Your task to perform on an android device: turn off airplane mode Image 0: 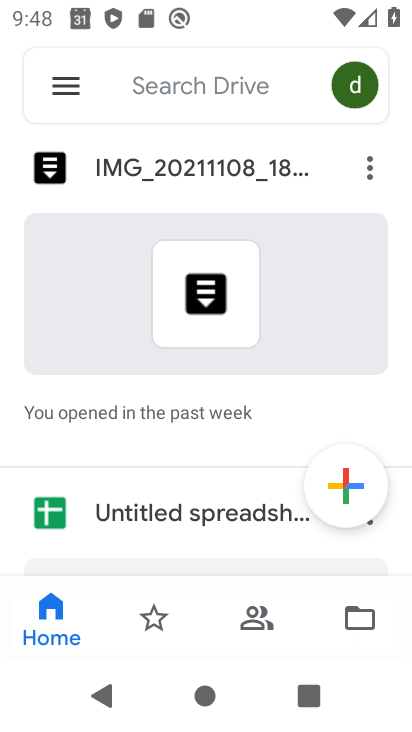
Step 0: press home button
Your task to perform on an android device: turn off airplane mode Image 1: 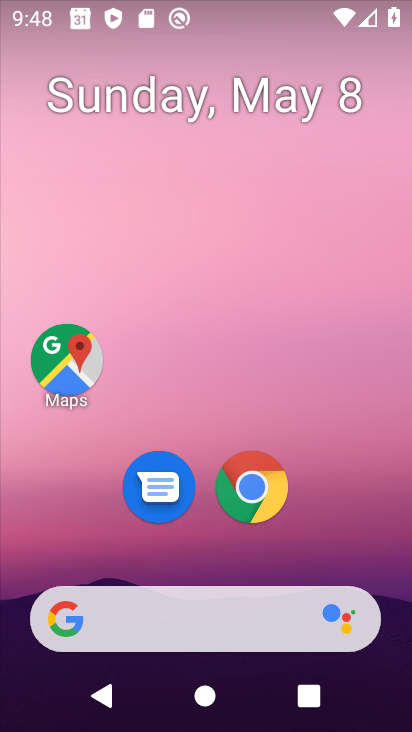
Step 1: drag from (384, 472) to (401, 69)
Your task to perform on an android device: turn off airplane mode Image 2: 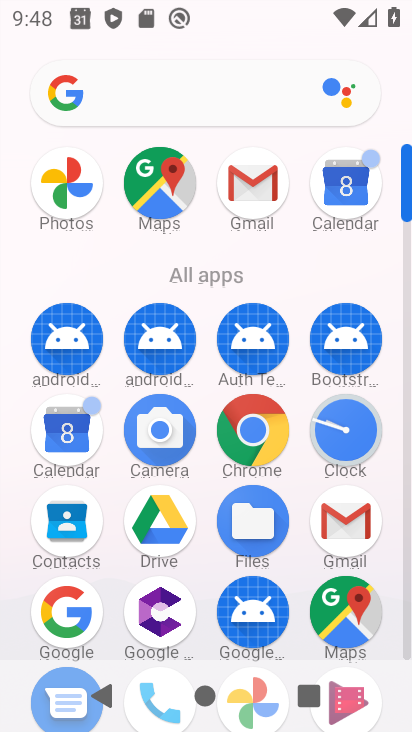
Step 2: drag from (385, 483) to (402, 146)
Your task to perform on an android device: turn off airplane mode Image 3: 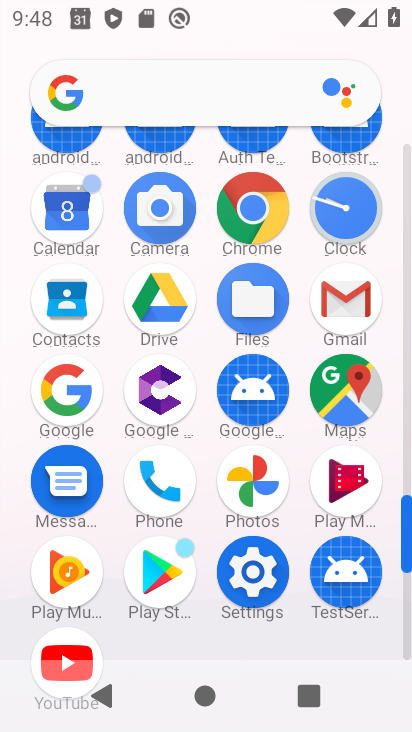
Step 3: click (230, 596)
Your task to perform on an android device: turn off airplane mode Image 4: 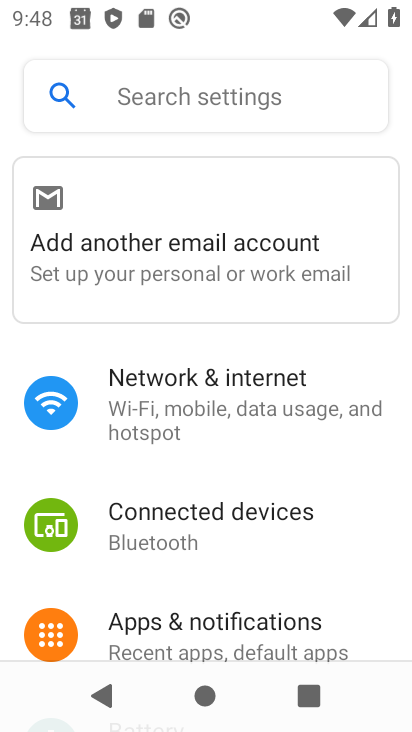
Step 4: click (217, 403)
Your task to perform on an android device: turn off airplane mode Image 5: 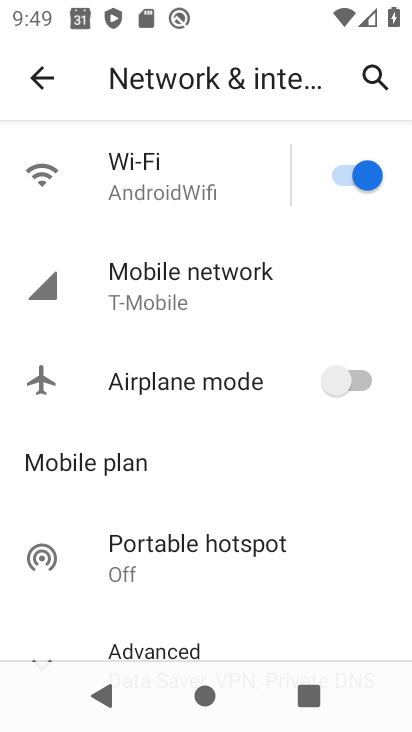
Step 5: task complete